Your task to perform on an android device: check out phone information Image 0: 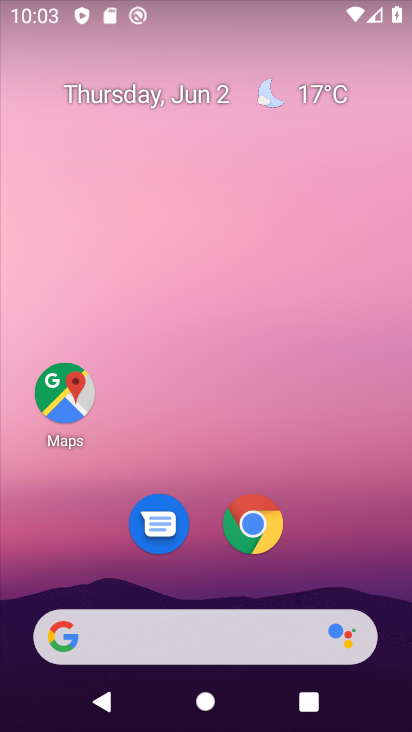
Step 0: drag from (228, 444) to (219, 0)
Your task to perform on an android device: check out phone information Image 1: 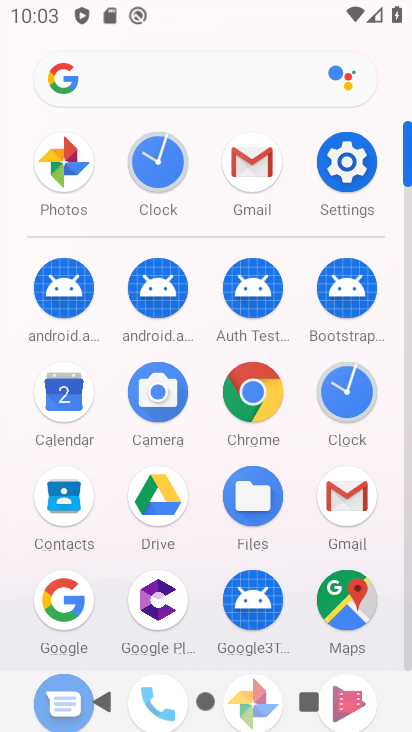
Step 1: drag from (201, 542) to (199, 180)
Your task to perform on an android device: check out phone information Image 2: 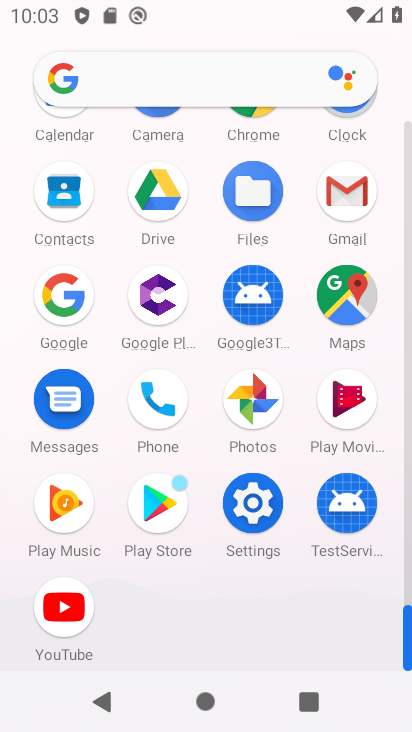
Step 2: click (153, 393)
Your task to perform on an android device: check out phone information Image 3: 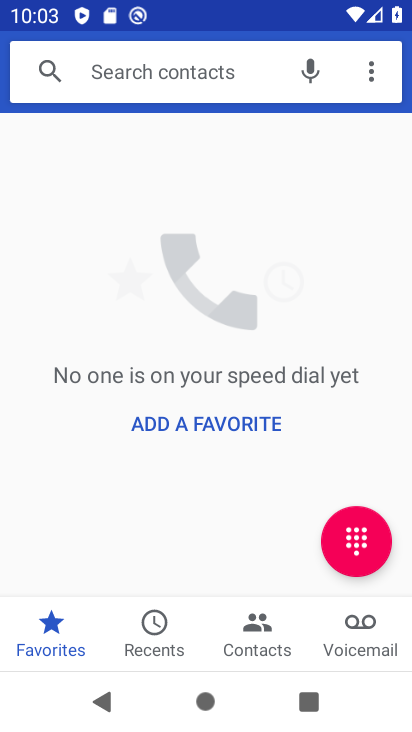
Step 3: click (363, 63)
Your task to perform on an android device: check out phone information Image 4: 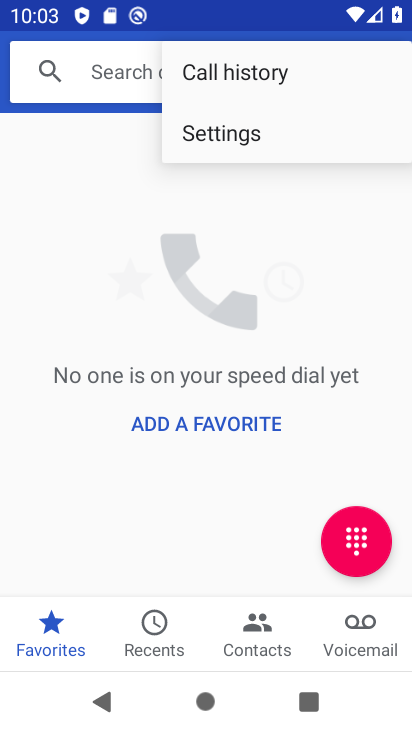
Step 4: click (336, 137)
Your task to perform on an android device: check out phone information Image 5: 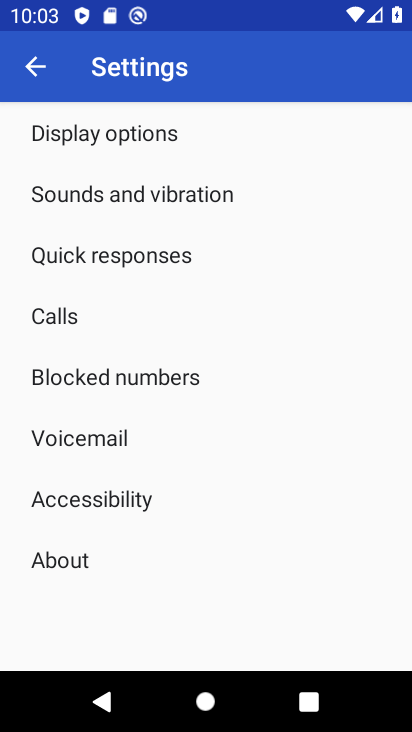
Step 5: click (161, 565)
Your task to perform on an android device: check out phone information Image 6: 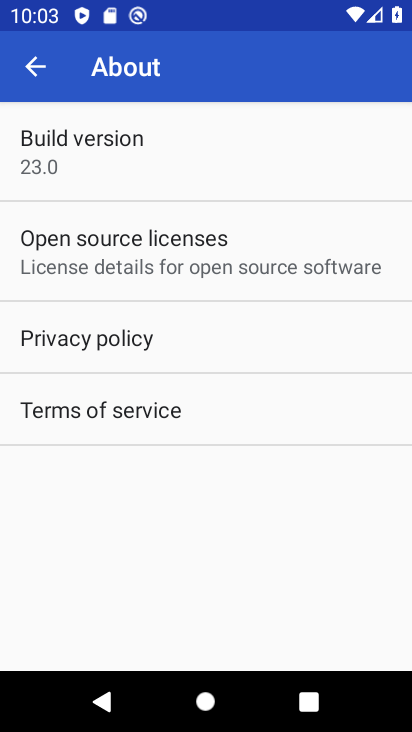
Step 6: task complete